Your task to perform on an android device: toggle javascript in the chrome app Image 0: 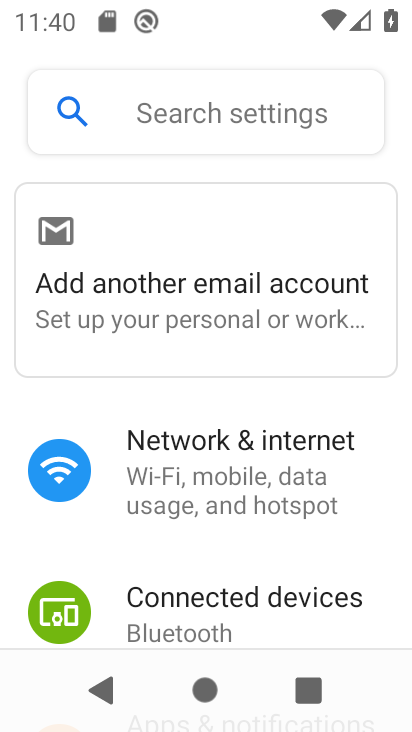
Step 0: press home button
Your task to perform on an android device: toggle javascript in the chrome app Image 1: 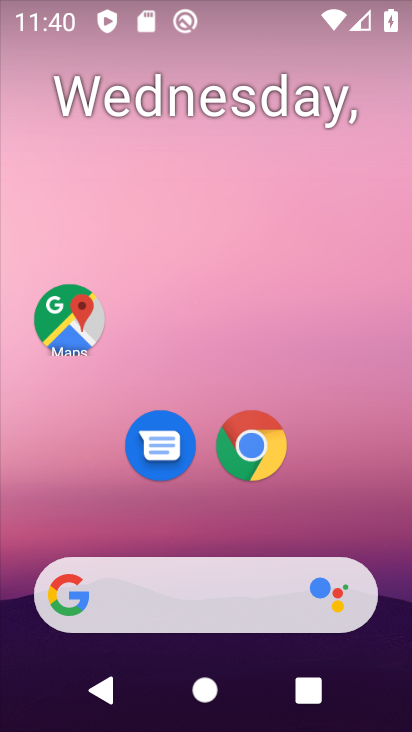
Step 1: drag from (351, 488) to (315, 54)
Your task to perform on an android device: toggle javascript in the chrome app Image 2: 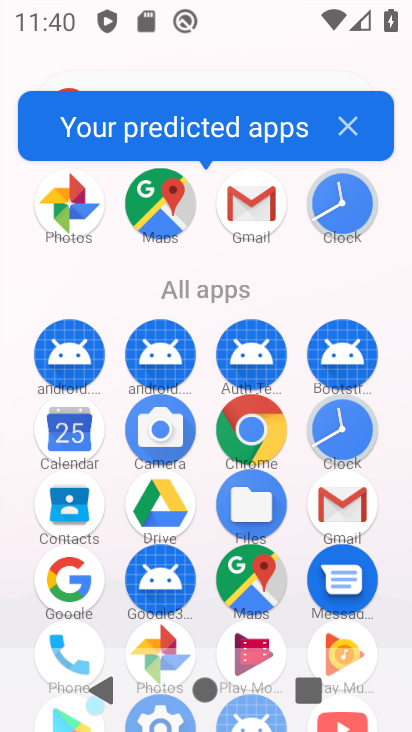
Step 2: click (261, 417)
Your task to perform on an android device: toggle javascript in the chrome app Image 3: 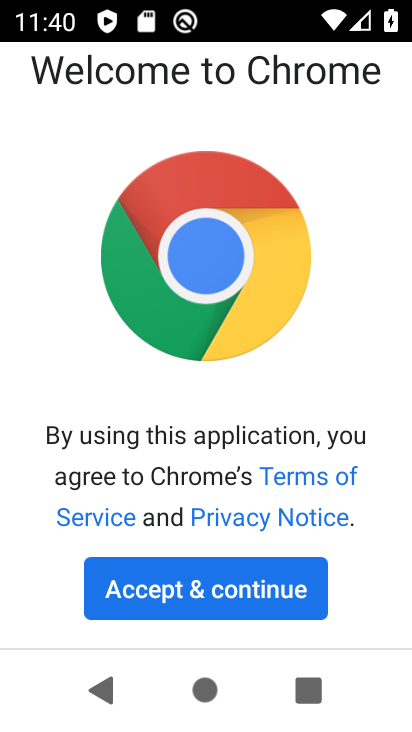
Step 3: click (253, 583)
Your task to perform on an android device: toggle javascript in the chrome app Image 4: 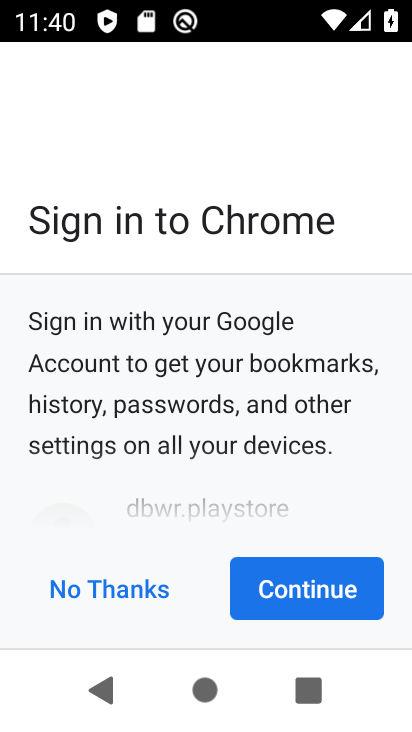
Step 4: click (282, 598)
Your task to perform on an android device: toggle javascript in the chrome app Image 5: 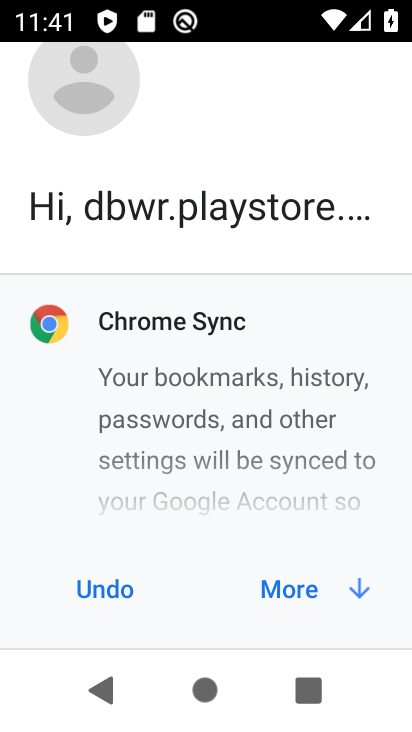
Step 5: click (287, 589)
Your task to perform on an android device: toggle javascript in the chrome app Image 6: 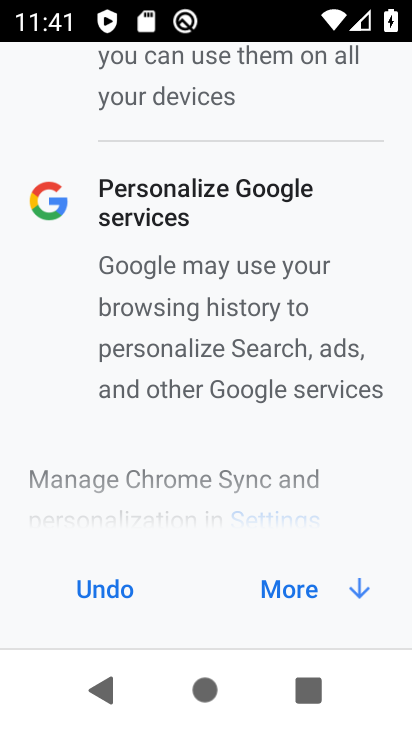
Step 6: click (310, 571)
Your task to perform on an android device: toggle javascript in the chrome app Image 7: 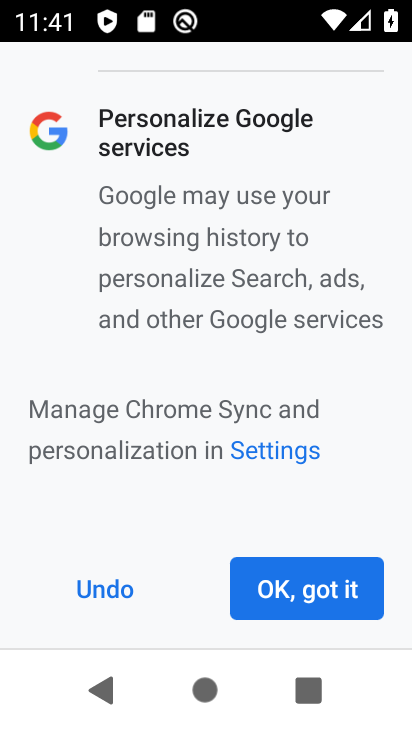
Step 7: click (313, 578)
Your task to perform on an android device: toggle javascript in the chrome app Image 8: 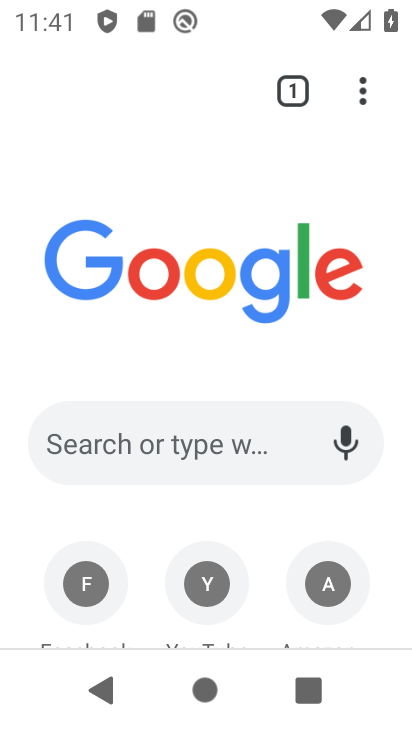
Step 8: drag from (368, 101) to (210, 473)
Your task to perform on an android device: toggle javascript in the chrome app Image 9: 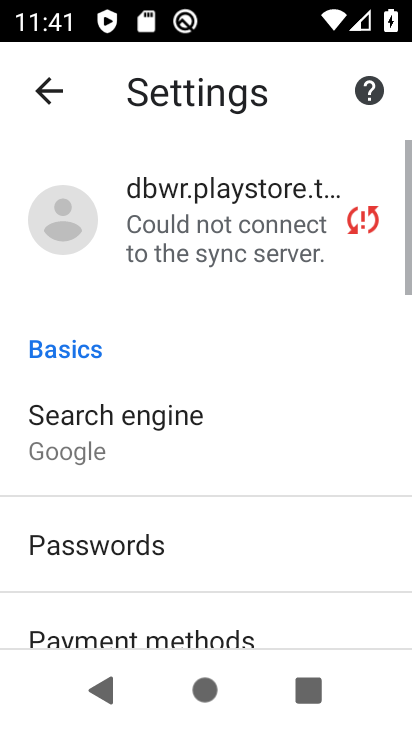
Step 9: drag from (260, 575) to (327, 122)
Your task to perform on an android device: toggle javascript in the chrome app Image 10: 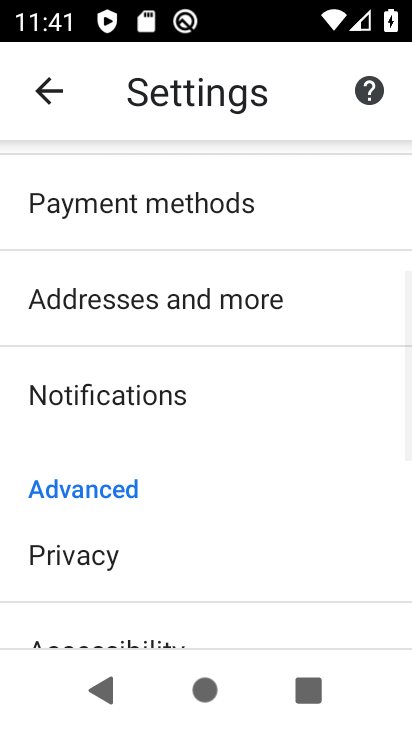
Step 10: drag from (259, 497) to (297, 166)
Your task to perform on an android device: toggle javascript in the chrome app Image 11: 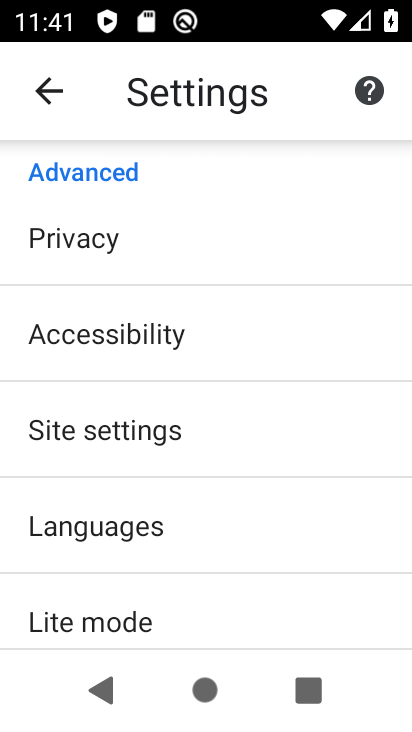
Step 11: click (142, 419)
Your task to perform on an android device: toggle javascript in the chrome app Image 12: 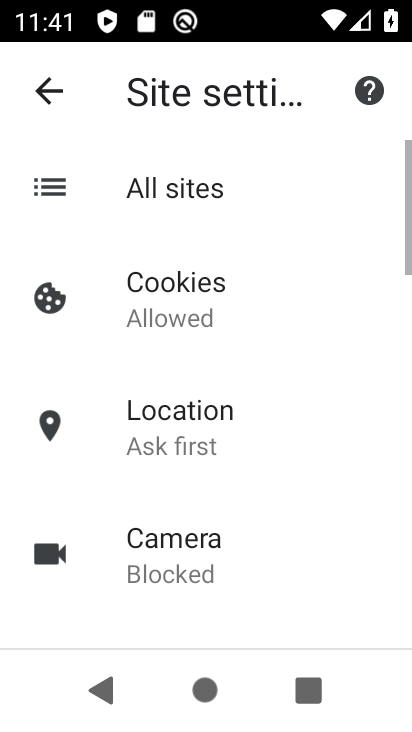
Step 12: drag from (240, 539) to (250, 114)
Your task to perform on an android device: toggle javascript in the chrome app Image 13: 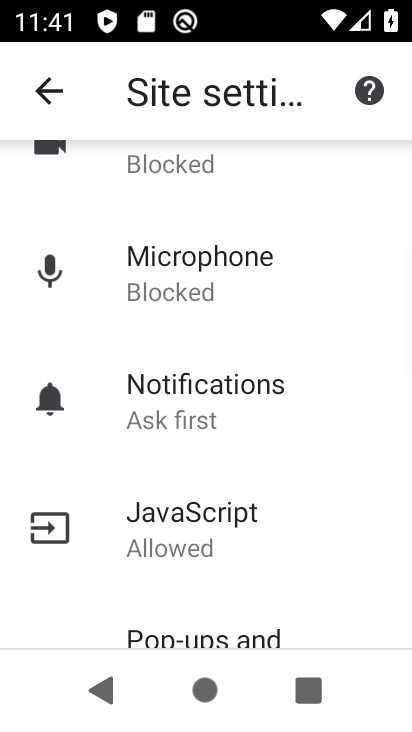
Step 13: click (205, 515)
Your task to perform on an android device: toggle javascript in the chrome app Image 14: 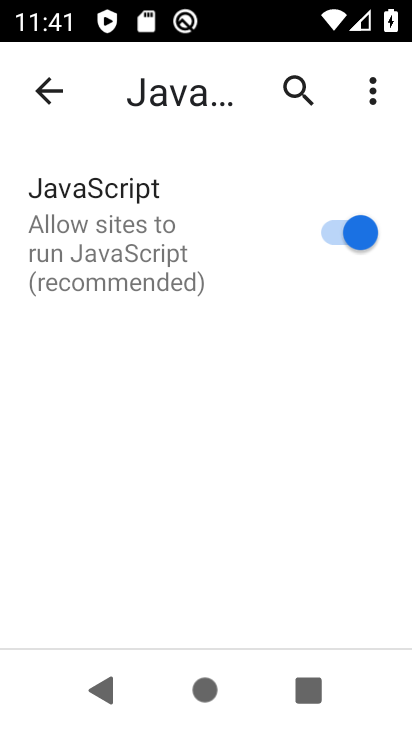
Step 14: drag from (241, 567) to (259, 311)
Your task to perform on an android device: toggle javascript in the chrome app Image 15: 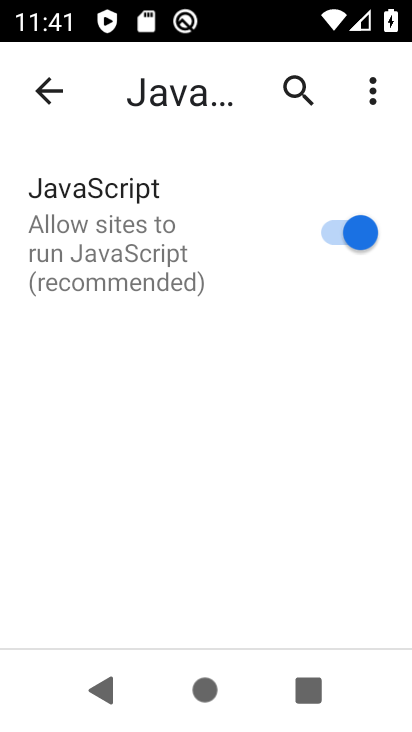
Step 15: click (353, 229)
Your task to perform on an android device: toggle javascript in the chrome app Image 16: 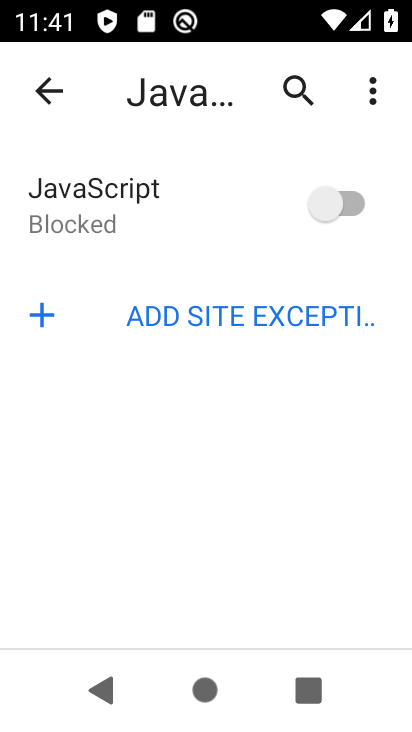
Step 16: task complete